Your task to perform on an android device: Search for seafood restaurants on Google Maps Image 0: 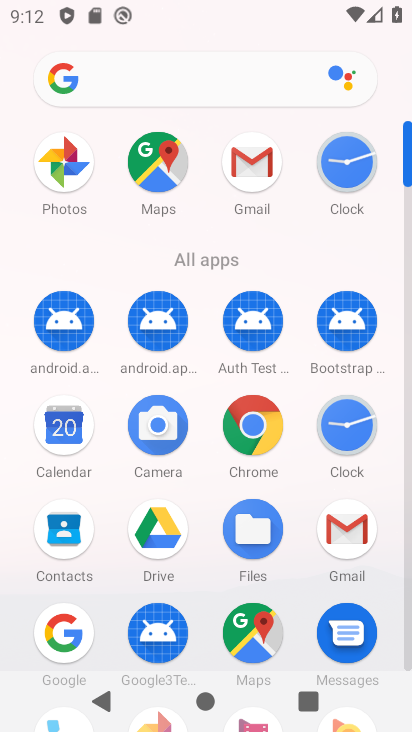
Step 0: press home button
Your task to perform on an android device: Search for seafood restaurants on Google Maps Image 1: 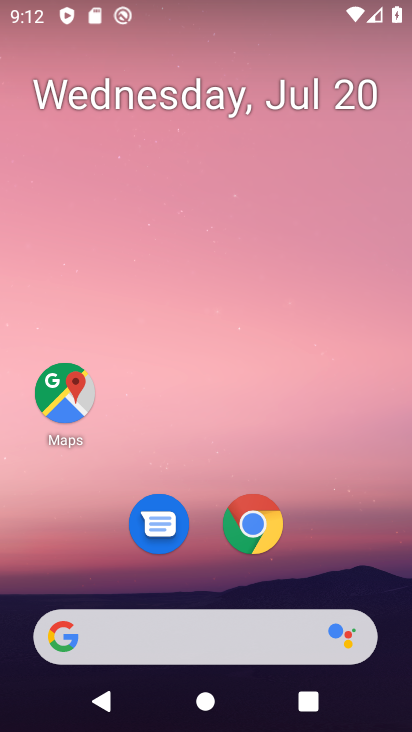
Step 1: click (70, 392)
Your task to perform on an android device: Search for seafood restaurants on Google Maps Image 2: 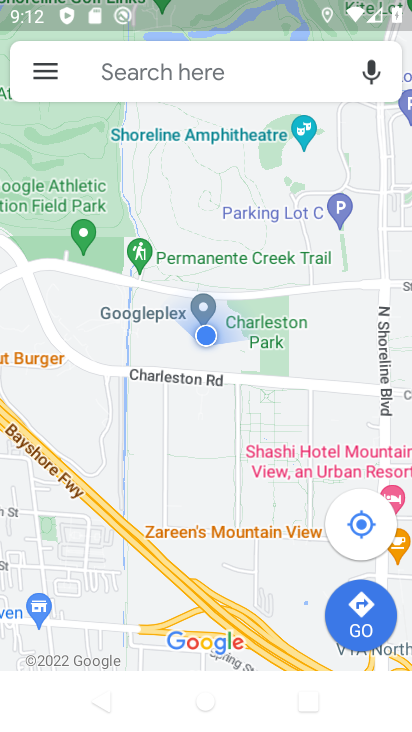
Step 2: click (145, 73)
Your task to perform on an android device: Search for seafood restaurants on Google Maps Image 3: 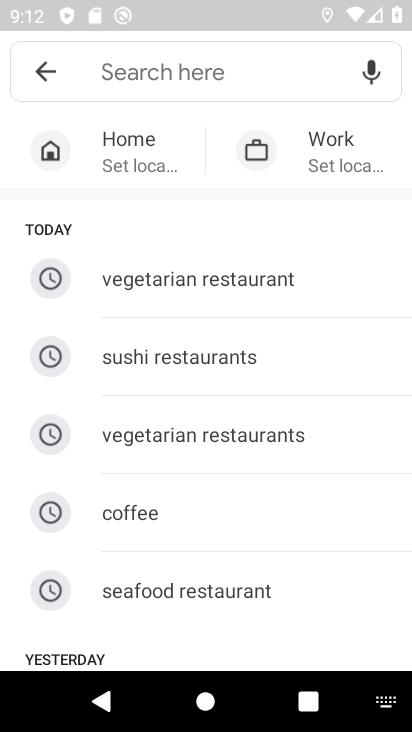
Step 3: click (228, 594)
Your task to perform on an android device: Search for seafood restaurants on Google Maps Image 4: 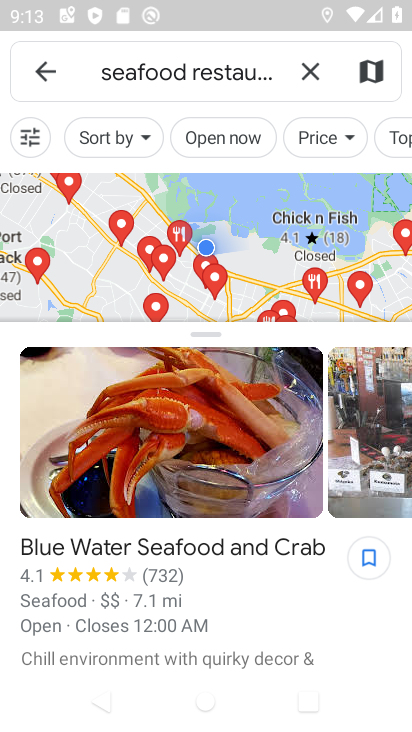
Step 4: task complete